Your task to perform on an android device: Add rayovac triple a to the cart on target Image 0: 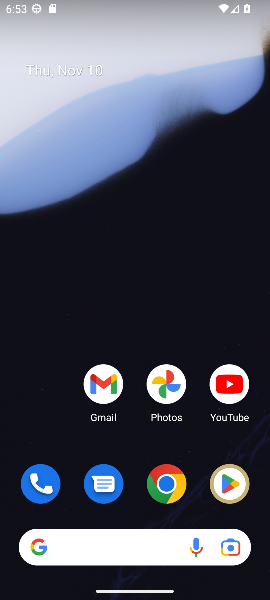
Step 0: click (162, 487)
Your task to perform on an android device: Add rayovac triple a to the cart on target Image 1: 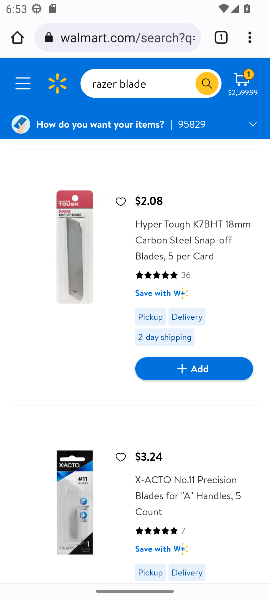
Step 1: click (130, 42)
Your task to perform on an android device: Add rayovac triple a to the cart on target Image 2: 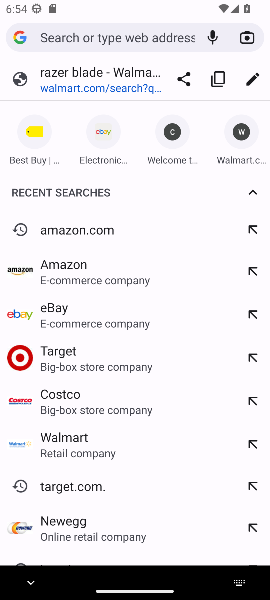
Step 2: click (76, 484)
Your task to perform on an android device: Add rayovac triple a to the cart on target Image 3: 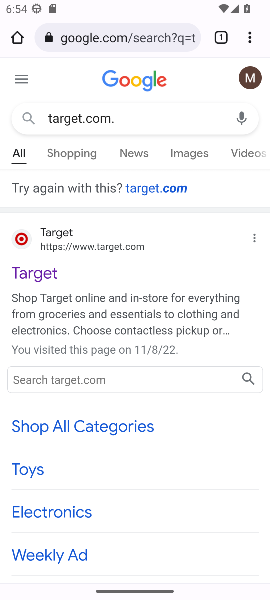
Step 3: click (44, 272)
Your task to perform on an android device: Add rayovac triple a to the cart on target Image 4: 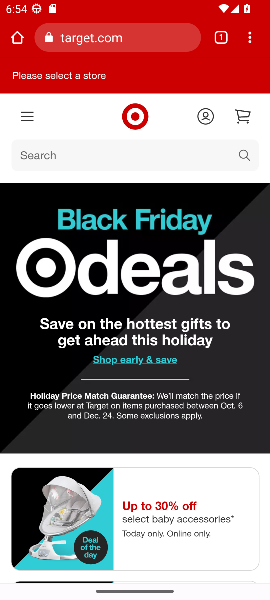
Step 4: click (244, 157)
Your task to perform on an android device: Add rayovac triple a to the cart on target Image 5: 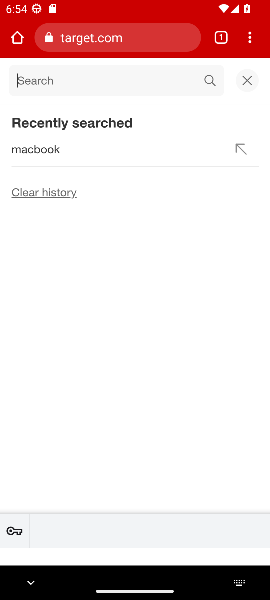
Step 5: type "rayovac triple a"
Your task to perform on an android device: Add rayovac triple a to the cart on target Image 6: 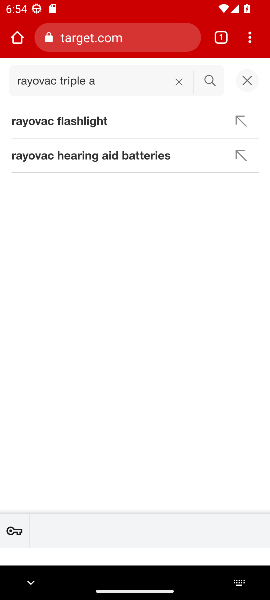
Step 6: click (208, 80)
Your task to perform on an android device: Add rayovac triple a to the cart on target Image 7: 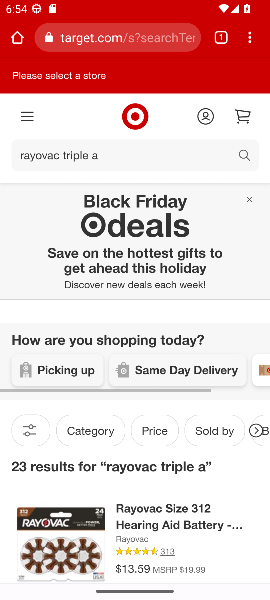
Step 7: task complete